Your task to perform on an android device: delete a single message in the gmail app Image 0: 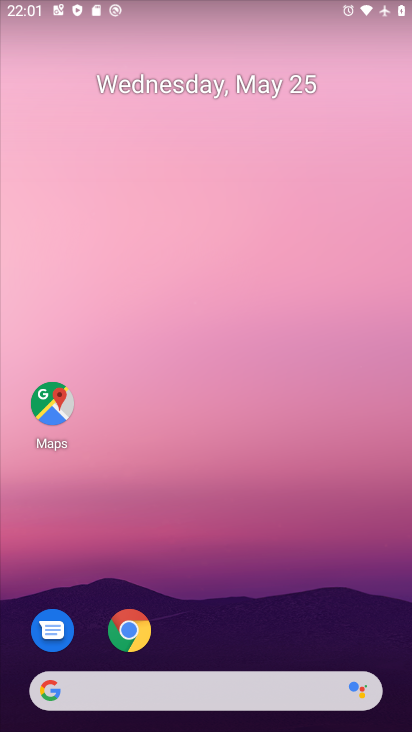
Step 0: drag from (218, 590) to (218, 160)
Your task to perform on an android device: delete a single message in the gmail app Image 1: 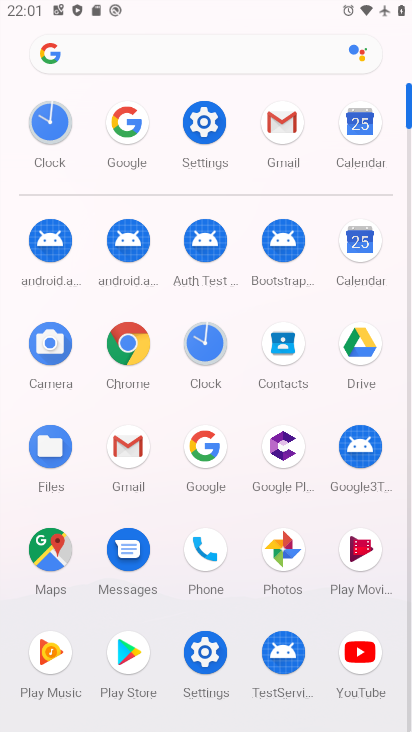
Step 1: click (268, 131)
Your task to perform on an android device: delete a single message in the gmail app Image 2: 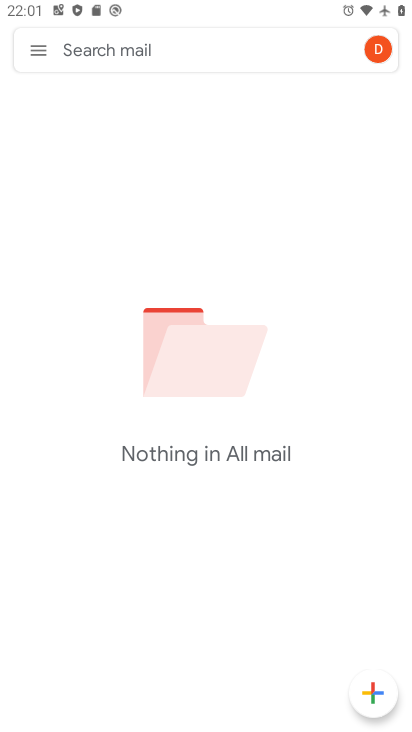
Step 2: click (38, 41)
Your task to perform on an android device: delete a single message in the gmail app Image 3: 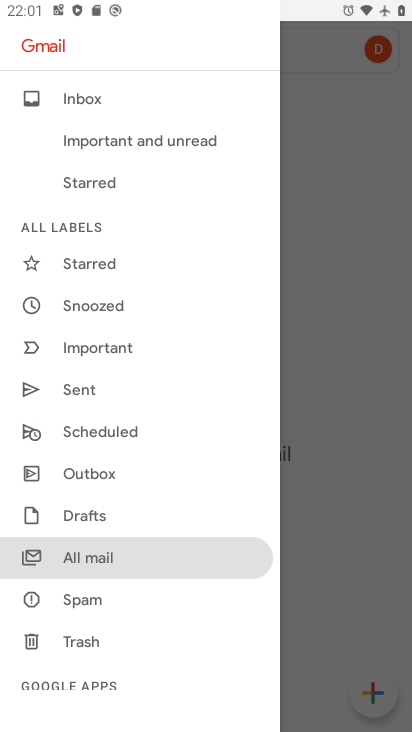
Step 3: task complete